Your task to perform on an android device: Is it going to rain today? Image 0: 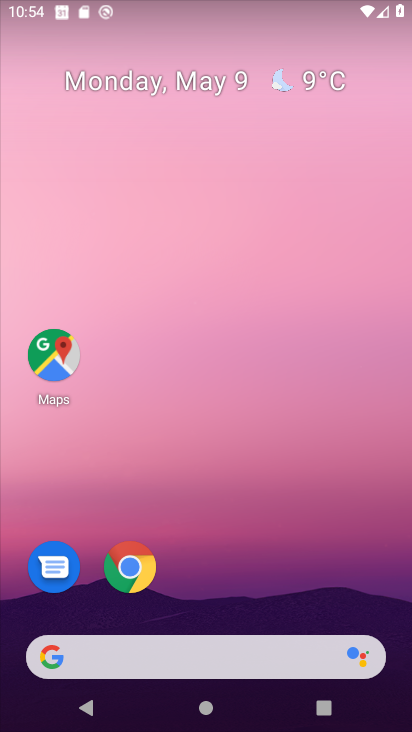
Step 0: drag from (213, 605) to (222, 54)
Your task to perform on an android device: Is it going to rain today? Image 1: 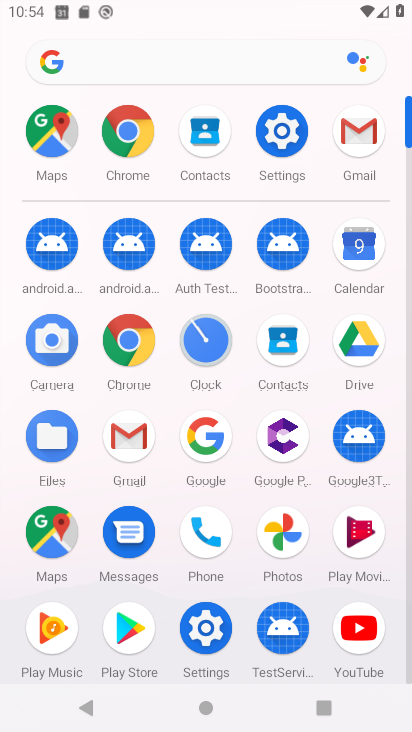
Step 1: press back button
Your task to perform on an android device: Is it going to rain today? Image 2: 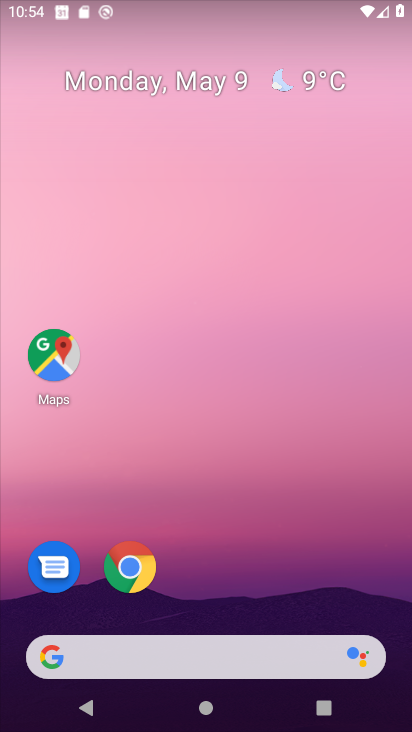
Step 2: click (305, 80)
Your task to perform on an android device: Is it going to rain today? Image 3: 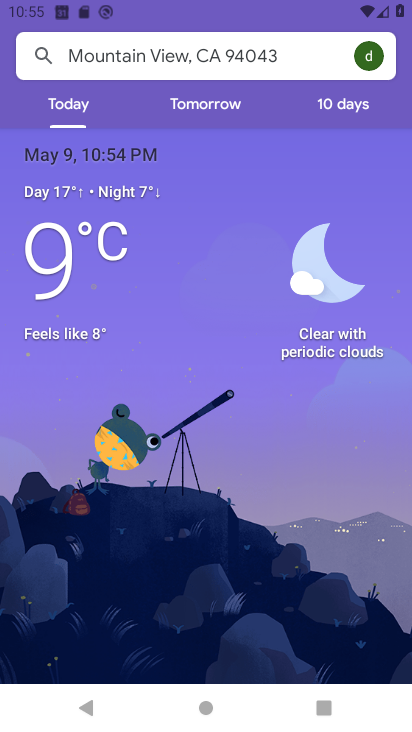
Step 3: task complete